Your task to perform on an android device: clear history in the chrome app Image 0: 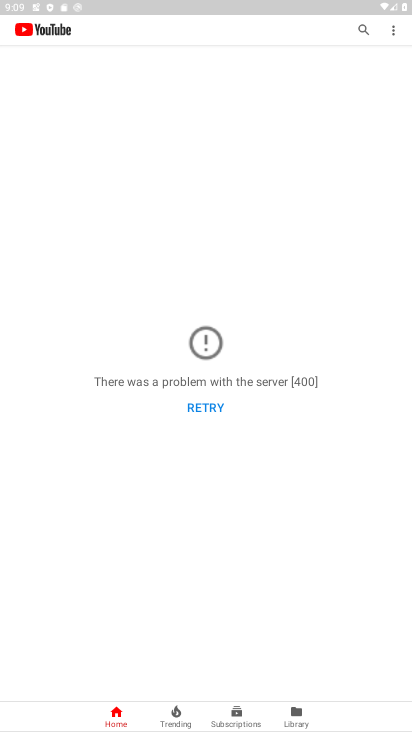
Step 0: press home button
Your task to perform on an android device: clear history in the chrome app Image 1: 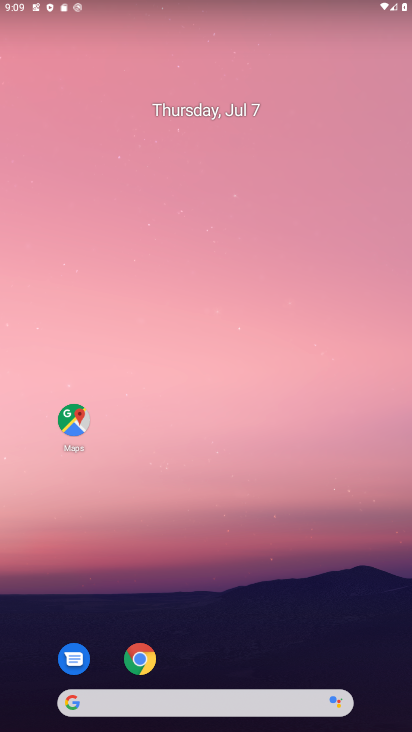
Step 1: click (142, 652)
Your task to perform on an android device: clear history in the chrome app Image 2: 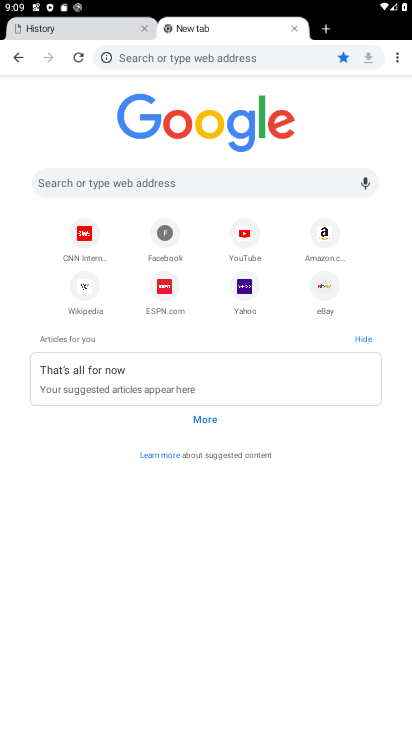
Step 2: click (398, 53)
Your task to perform on an android device: clear history in the chrome app Image 3: 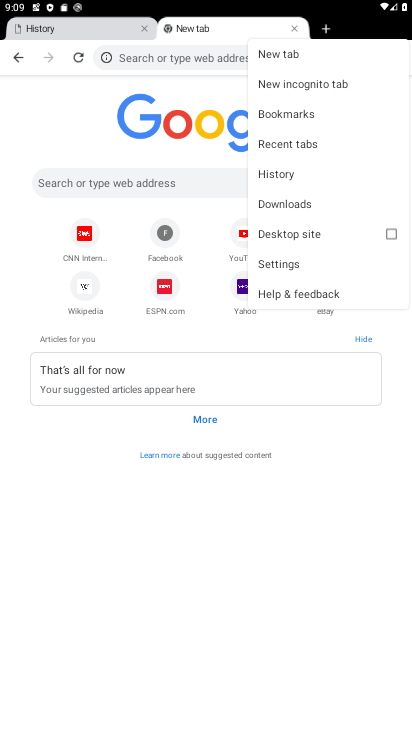
Step 3: click (275, 174)
Your task to perform on an android device: clear history in the chrome app Image 4: 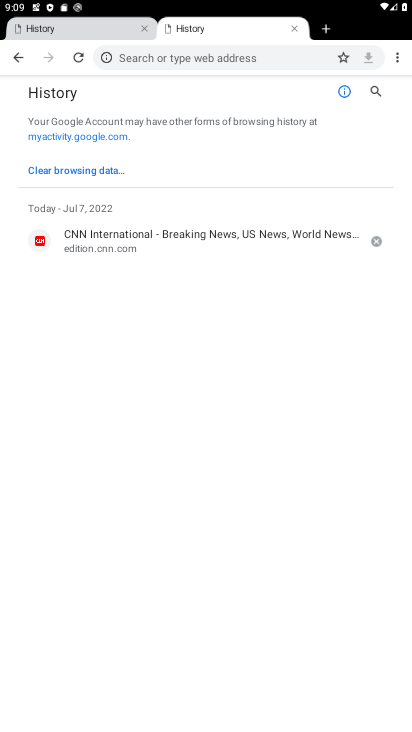
Step 4: click (73, 162)
Your task to perform on an android device: clear history in the chrome app Image 5: 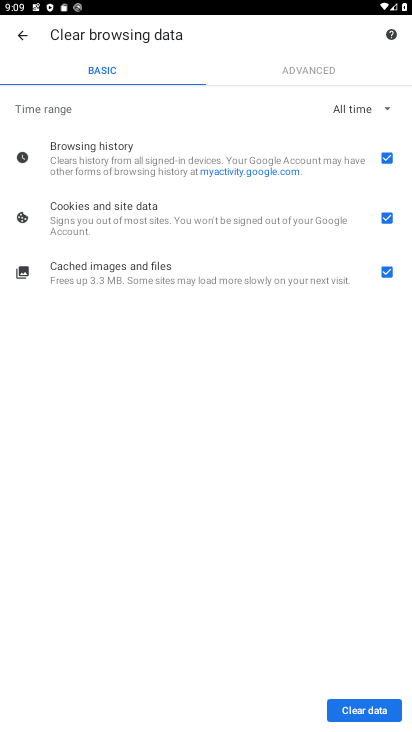
Step 5: click (353, 711)
Your task to perform on an android device: clear history in the chrome app Image 6: 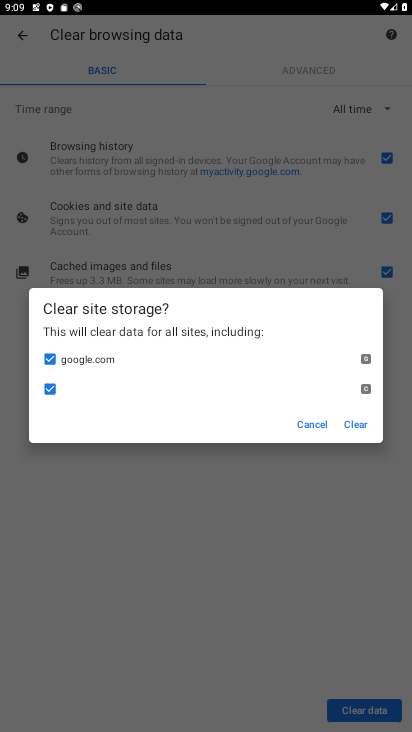
Step 6: click (366, 421)
Your task to perform on an android device: clear history in the chrome app Image 7: 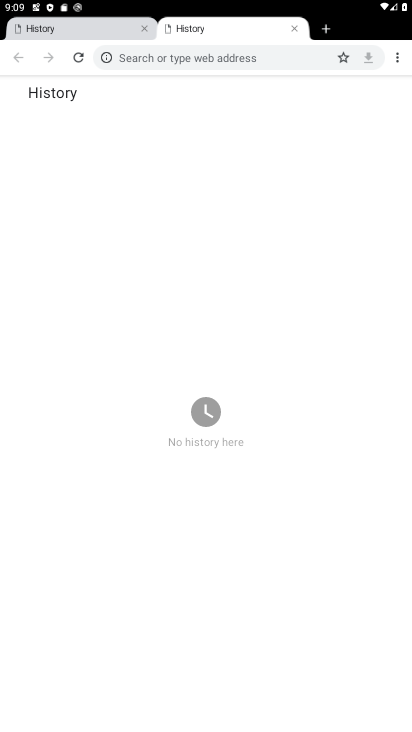
Step 7: task complete